Your task to perform on an android device: turn off javascript in the chrome app Image 0: 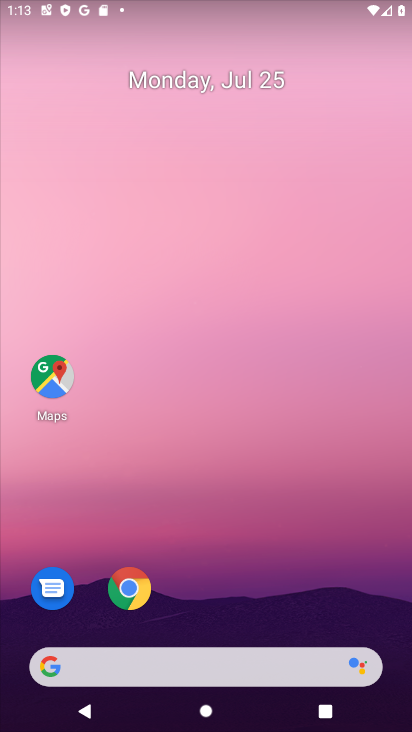
Step 0: click (125, 594)
Your task to perform on an android device: turn off javascript in the chrome app Image 1: 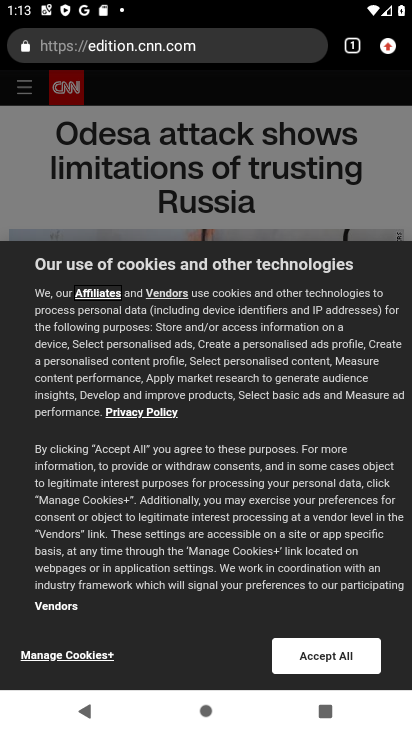
Step 1: click (387, 43)
Your task to perform on an android device: turn off javascript in the chrome app Image 2: 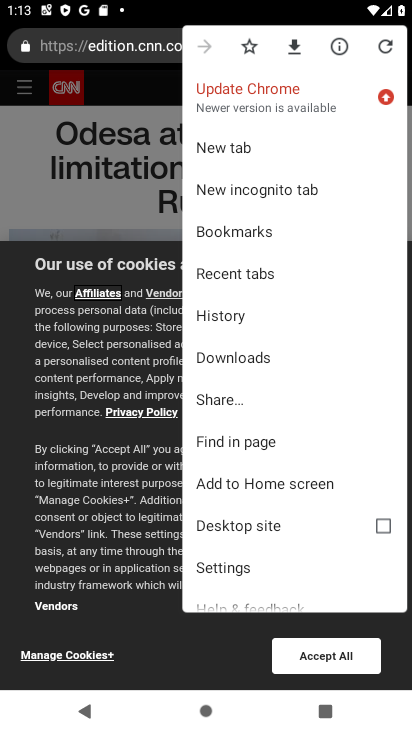
Step 2: click (215, 560)
Your task to perform on an android device: turn off javascript in the chrome app Image 3: 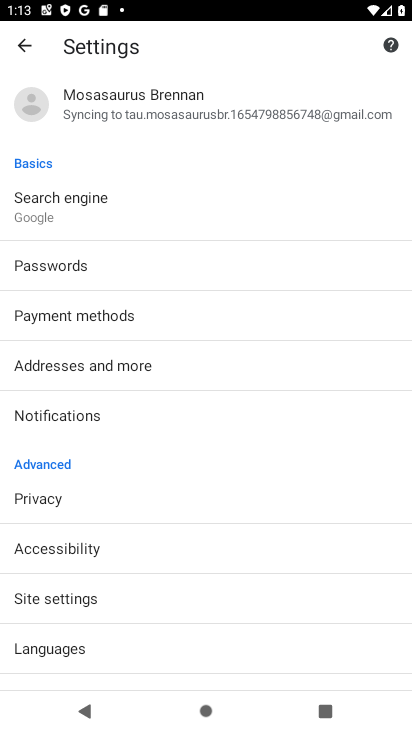
Step 3: click (73, 600)
Your task to perform on an android device: turn off javascript in the chrome app Image 4: 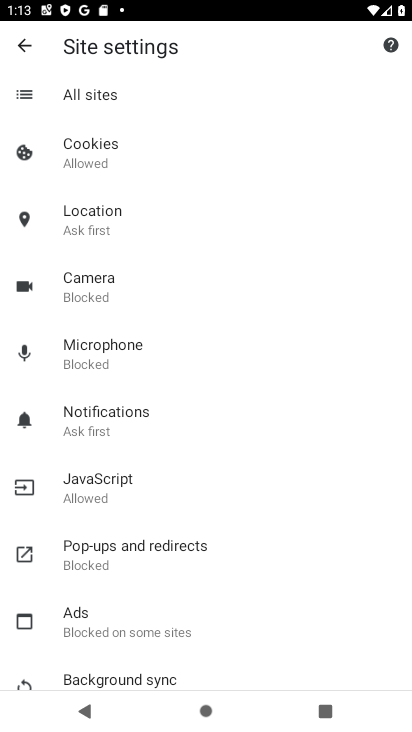
Step 4: click (84, 489)
Your task to perform on an android device: turn off javascript in the chrome app Image 5: 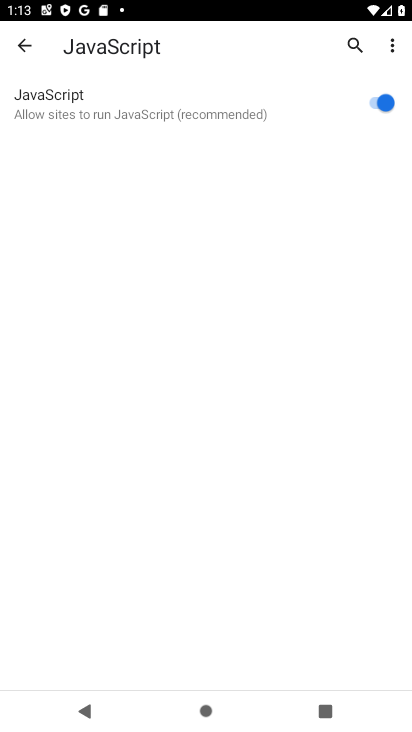
Step 5: click (369, 102)
Your task to perform on an android device: turn off javascript in the chrome app Image 6: 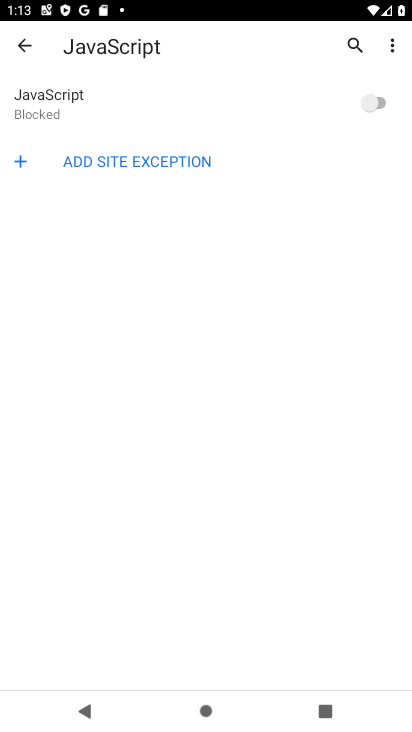
Step 6: task complete